Your task to perform on an android device: open wifi settings Image 0: 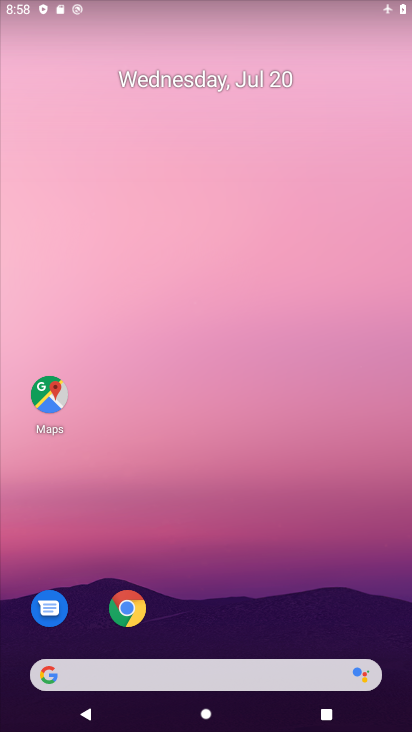
Step 0: click (199, 352)
Your task to perform on an android device: open wifi settings Image 1: 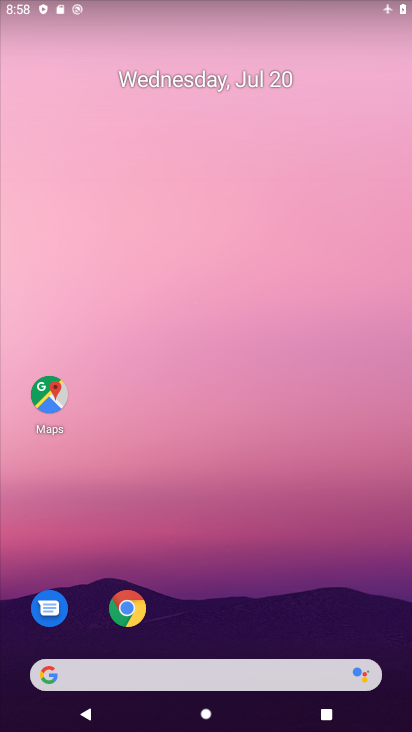
Step 1: drag from (284, 700) to (268, 132)
Your task to perform on an android device: open wifi settings Image 2: 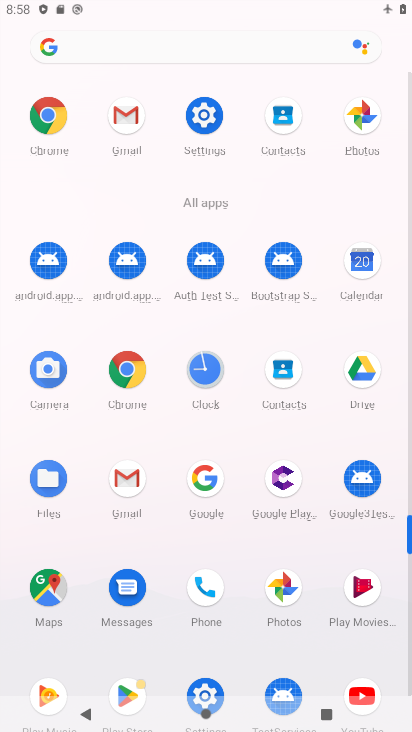
Step 2: click (213, 109)
Your task to perform on an android device: open wifi settings Image 3: 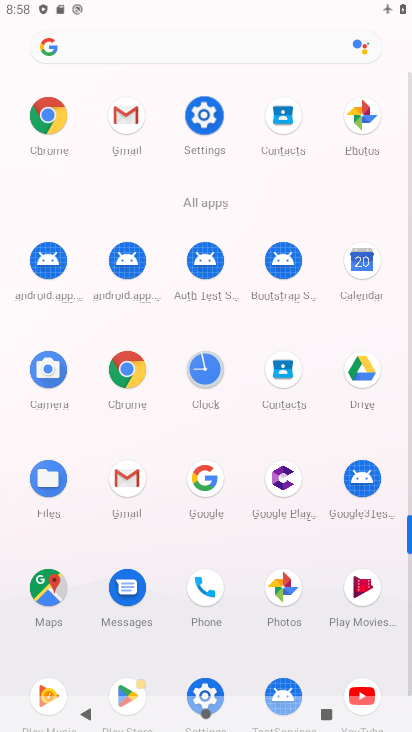
Step 3: click (215, 111)
Your task to perform on an android device: open wifi settings Image 4: 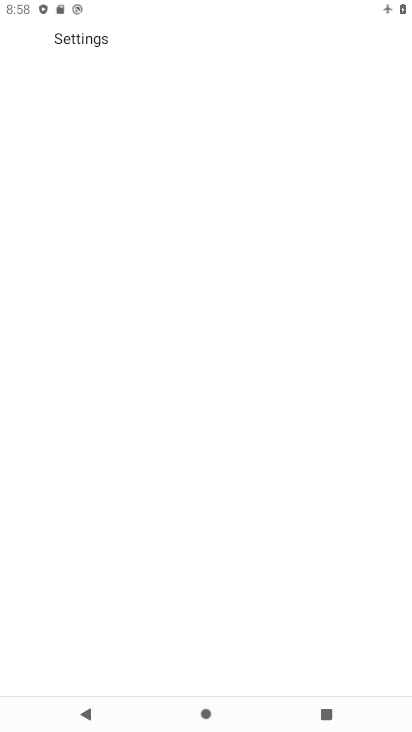
Step 4: click (217, 113)
Your task to perform on an android device: open wifi settings Image 5: 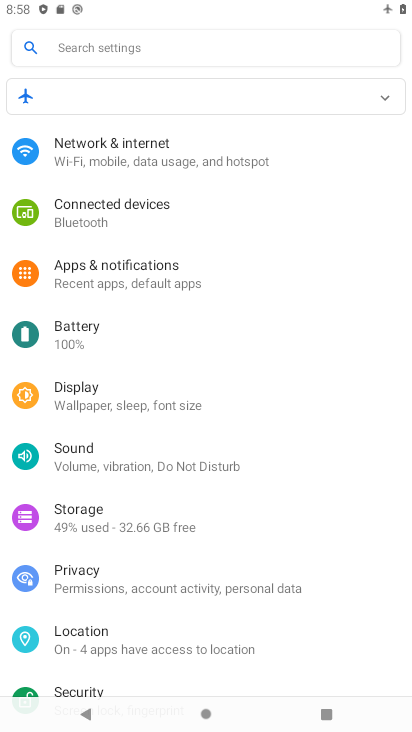
Step 5: click (147, 147)
Your task to perform on an android device: open wifi settings Image 6: 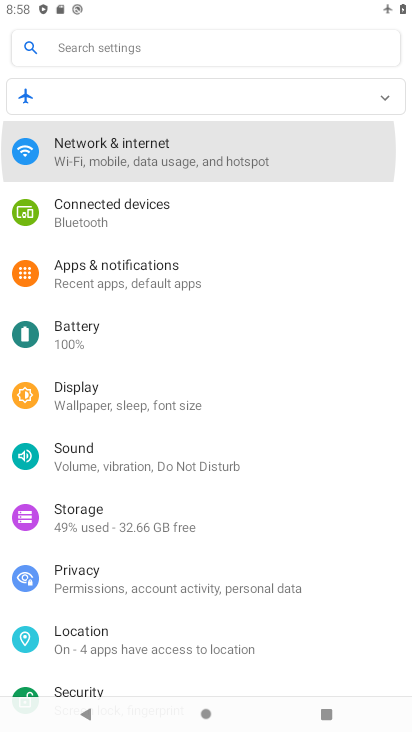
Step 6: click (147, 145)
Your task to perform on an android device: open wifi settings Image 7: 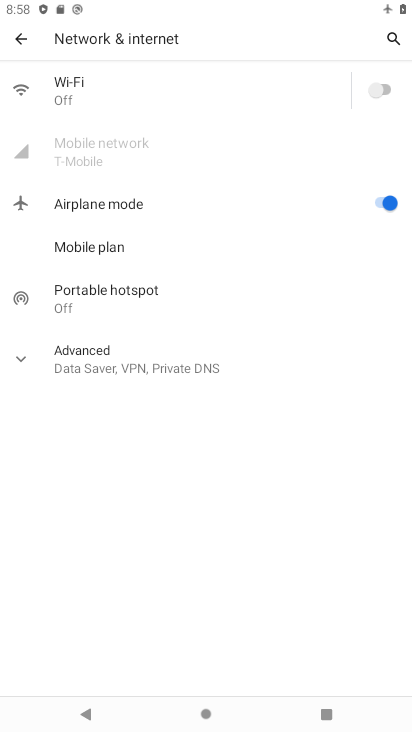
Step 7: click (382, 83)
Your task to perform on an android device: open wifi settings Image 8: 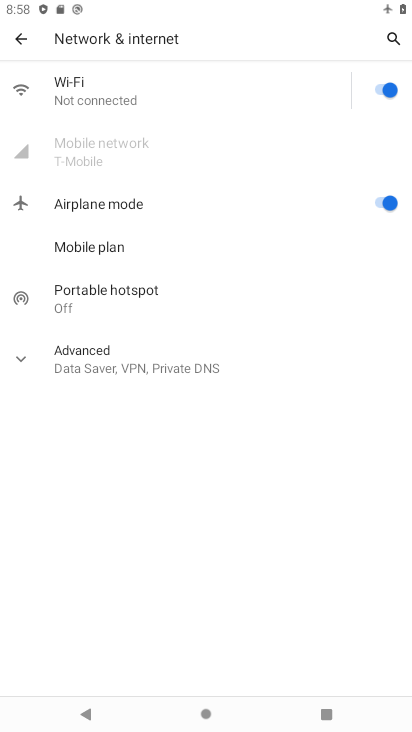
Step 8: click (390, 196)
Your task to perform on an android device: open wifi settings Image 9: 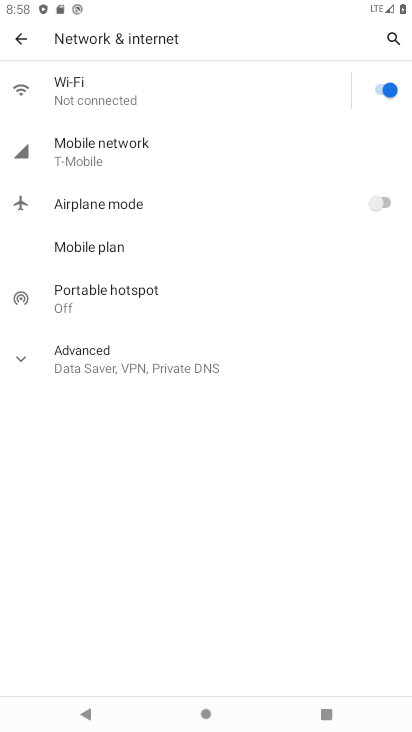
Step 9: task complete